Your task to perform on an android device: turn off wifi Image 0: 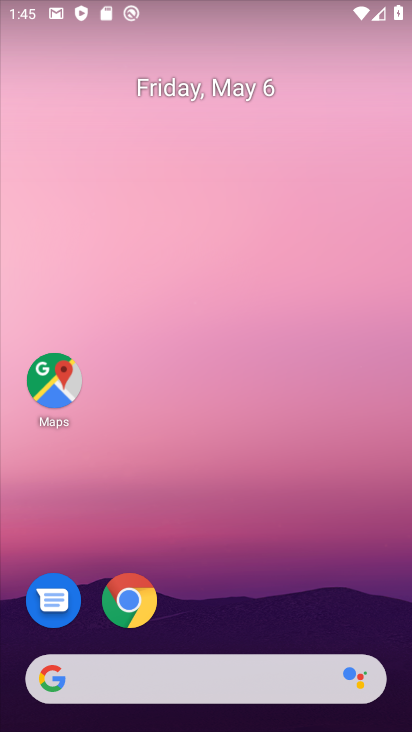
Step 0: drag from (179, 633) to (265, 154)
Your task to perform on an android device: turn off wifi Image 1: 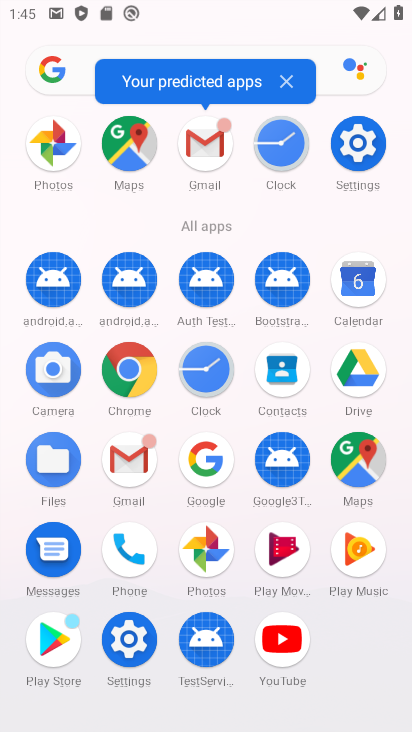
Step 1: click (354, 149)
Your task to perform on an android device: turn off wifi Image 2: 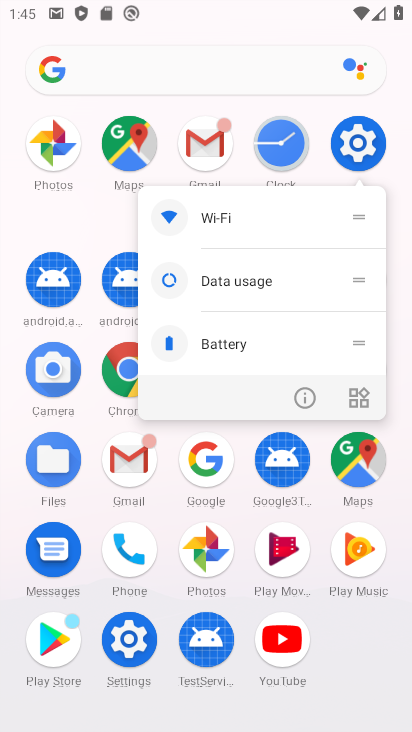
Step 2: click (371, 145)
Your task to perform on an android device: turn off wifi Image 3: 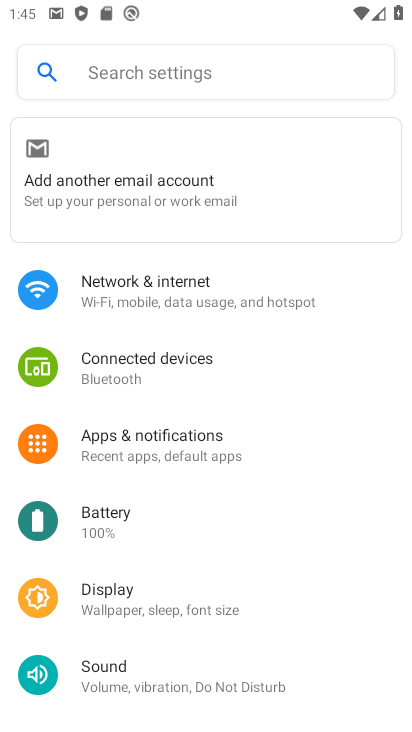
Step 3: click (159, 306)
Your task to perform on an android device: turn off wifi Image 4: 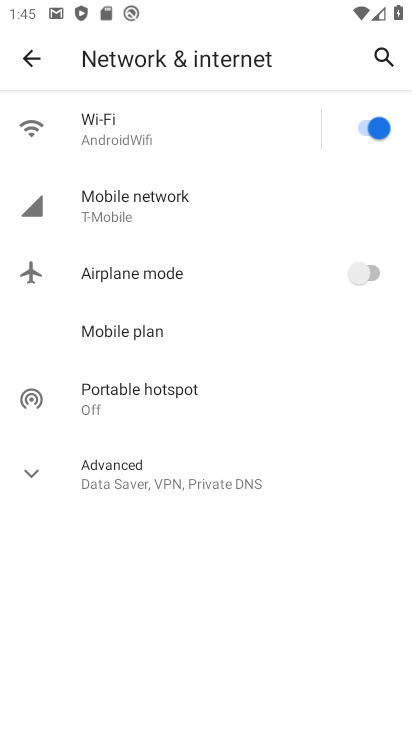
Step 4: click (365, 129)
Your task to perform on an android device: turn off wifi Image 5: 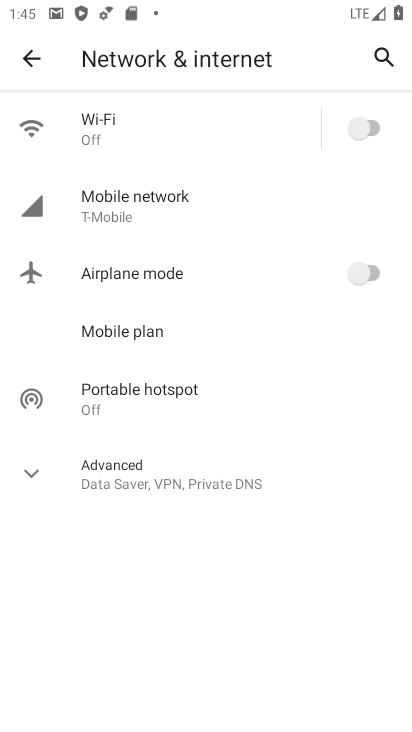
Step 5: task complete